Your task to perform on an android device: snooze an email in the gmail app Image 0: 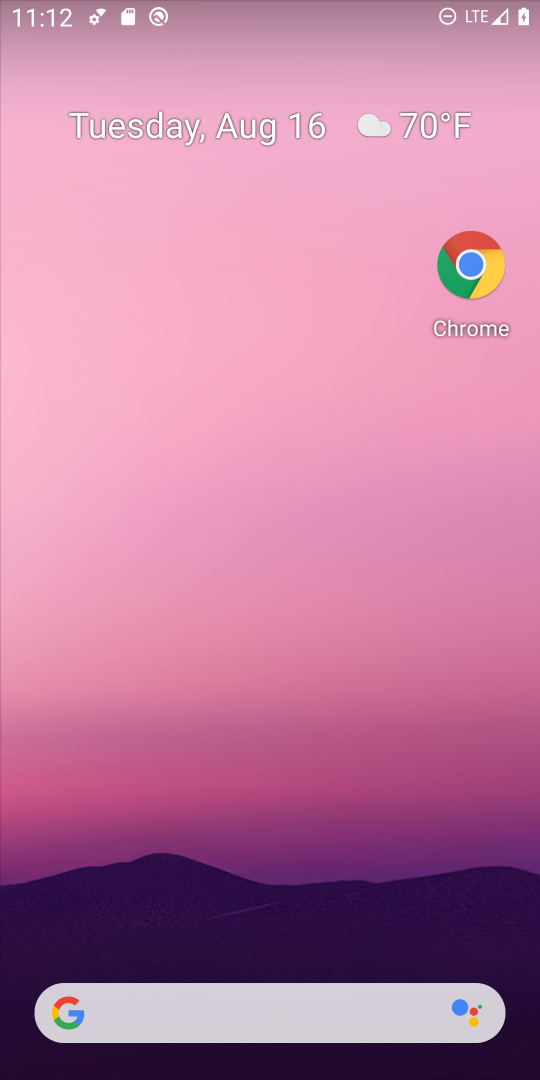
Step 0: drag from (272, 1040) to (289, 60)
Your task to perform on an android device: snooze an email in the gmail app Image 1: 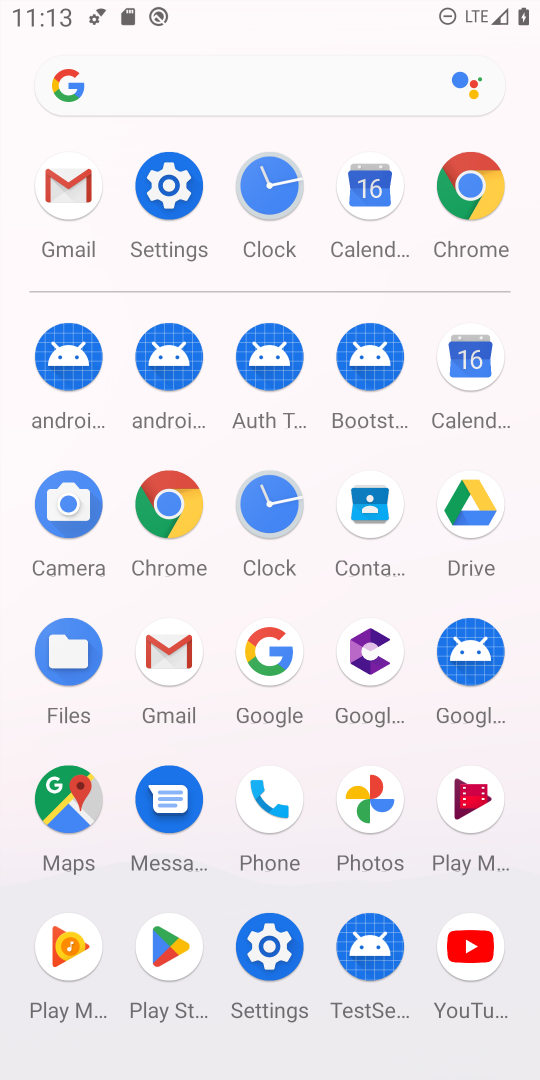
Step 1: click (169, 677)
Your task to perform on an android device: snooze an email in the gmail app Image 2: 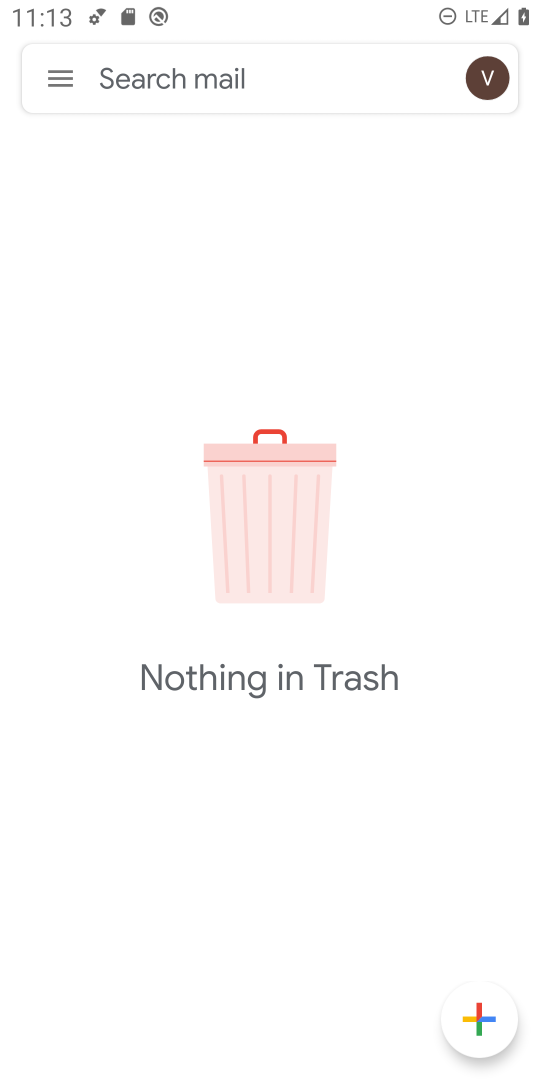
Step 2: click (63, 89)
Your task to perform on an android device: snooze an email in the gmail app Image 3: 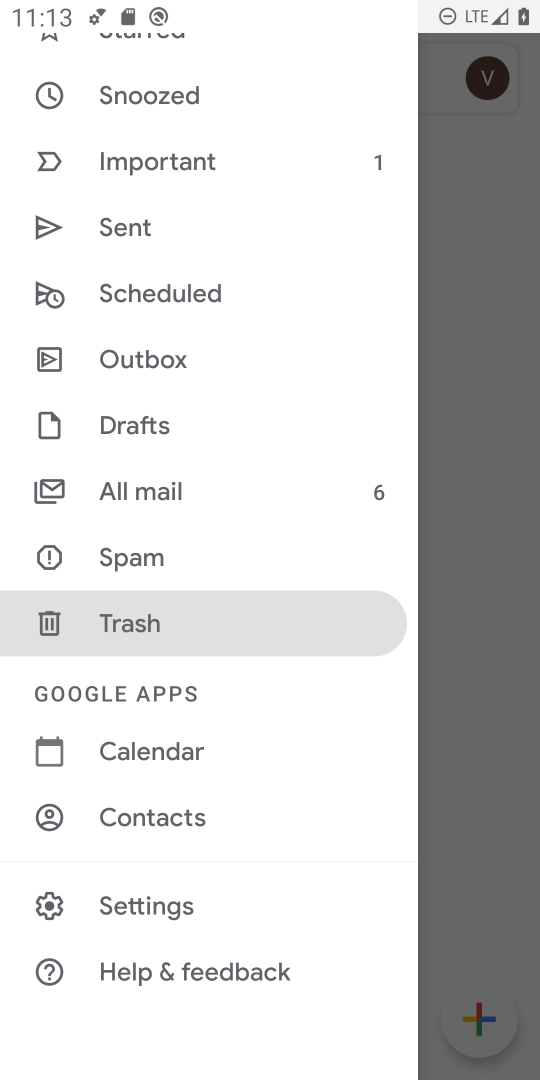
Step 3: click (192, 490)
Your task to perform on an android device: snooze an email in the gmail app Image 4: 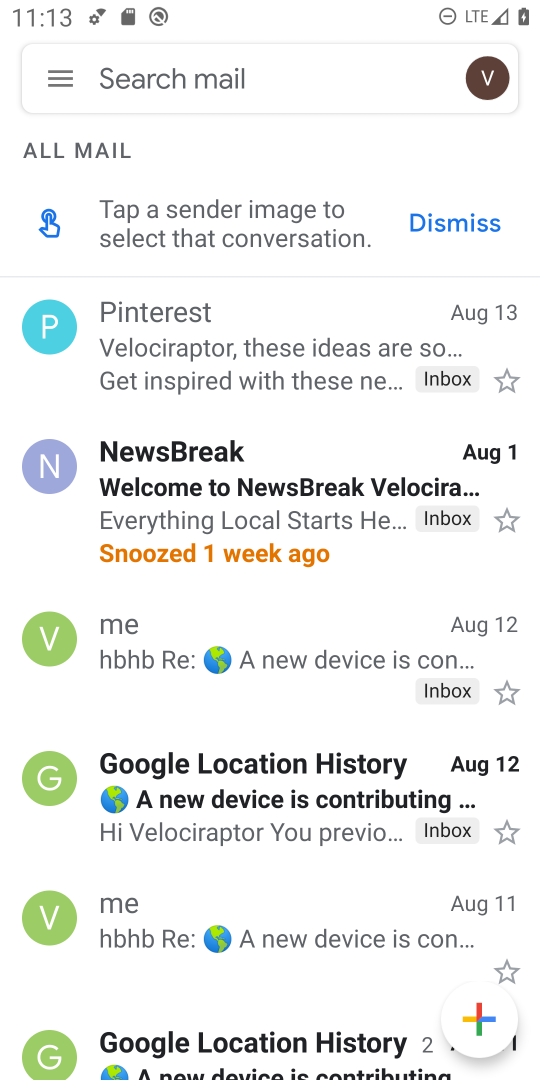
Step 4: click (242, 365)
Your task to perform on an android device: snooze an email in the gmail app Image 5: 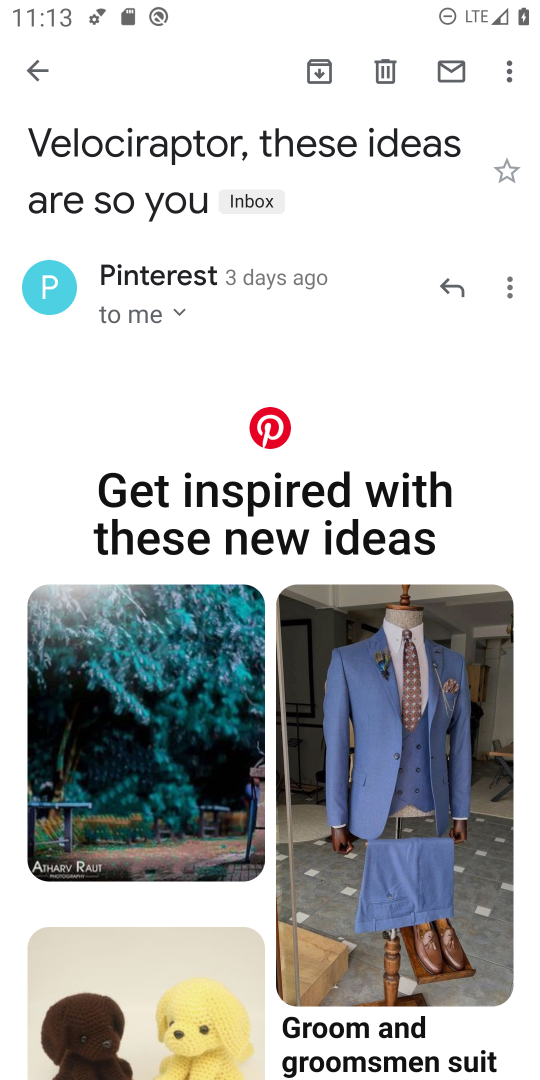
Step 5: click (503, 83)
Your task to perform on an android device: snooze an email in the gmail app Image 6: 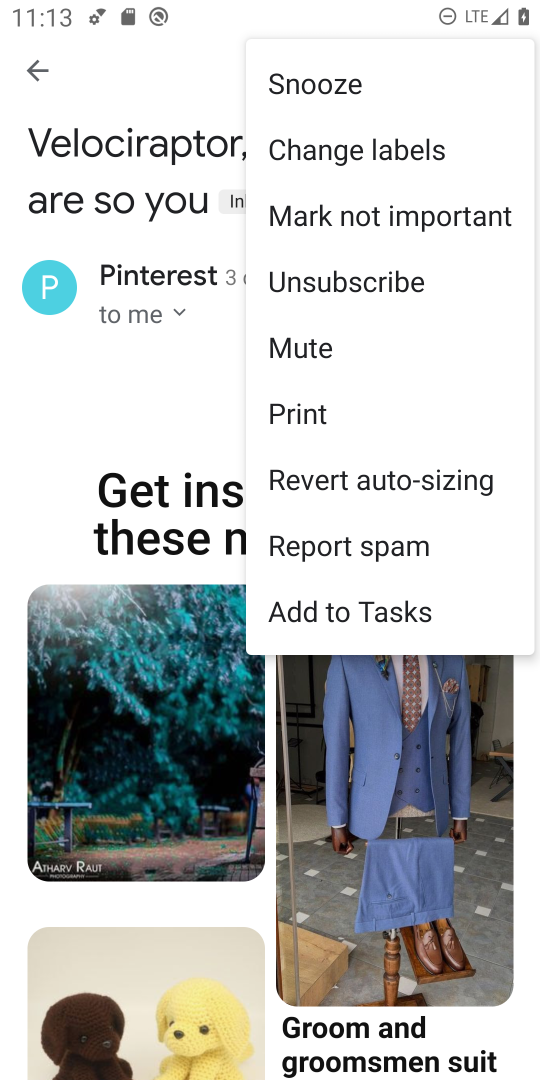
Step 6: drag from (379, 539) to (394, 156)
Your task to perform on an android device: snooze an email in the gmail app Image 7: 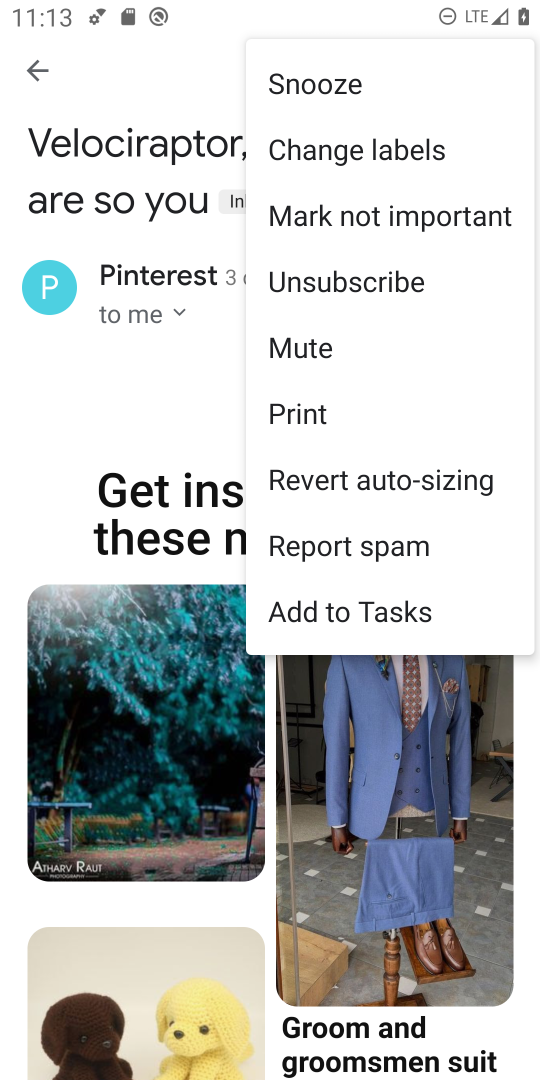
Step 7: click (313, 79)
Your task to perform on an android device: snooze an email in the gmail app Image 8: 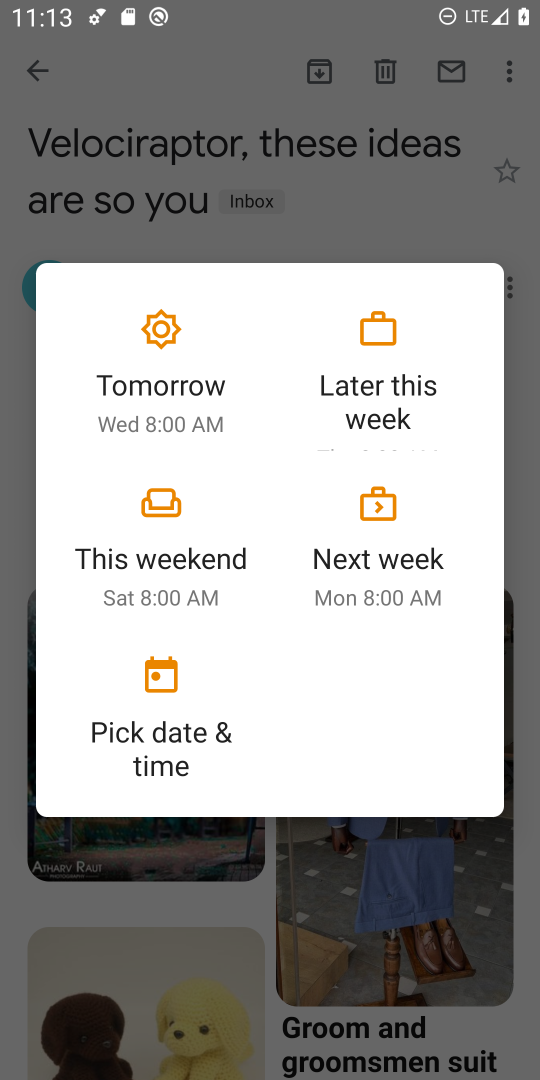
Step 8: click (167, 406)
Your task to perform on an android device: snooze an email in the gmail app Image 9: 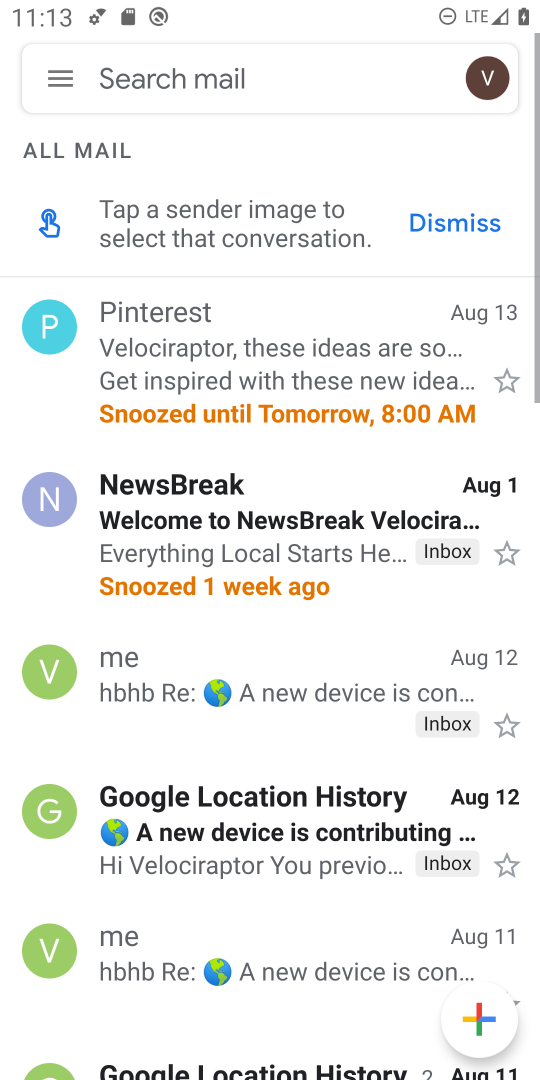
Step 9: task complete